Your task to perform on an android device: open chrome and create a bookmark for the current page Image 0: 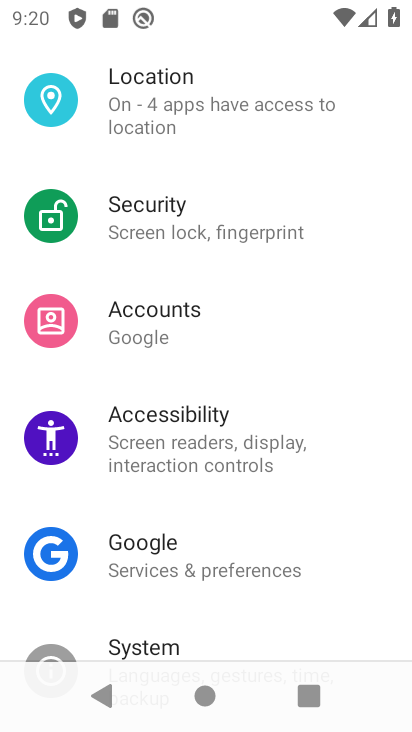
Step 0: press home button
Your task to perform on an android device: open chrome and create a bookmark for the current page Image 1: 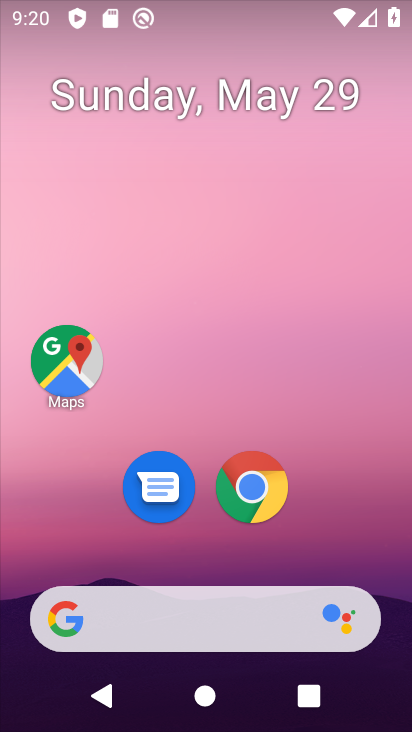
Step 1: click (232, 491)
Your task to perform on an android device: open chrome and create a bookmark for the current page Image 2: 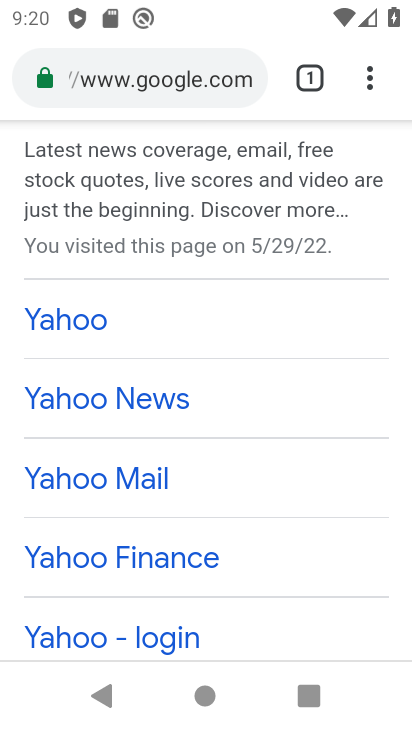
Step 2: click (372, 75)
Your task to perform on an android device: open chrome and create a bookmark for the current page Image 3: 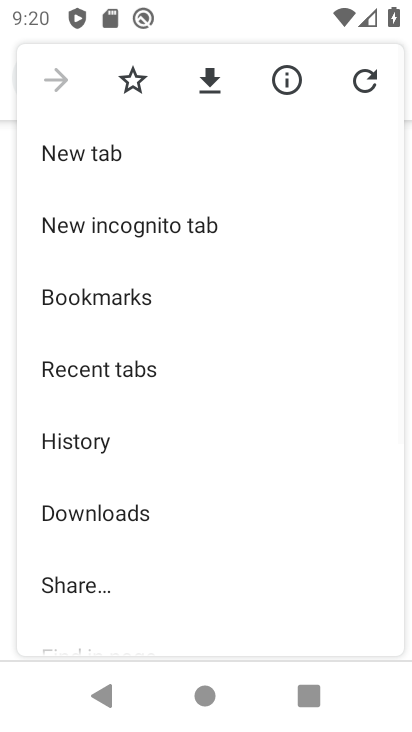
Step 3: click (130, 81)
Your task to perform on an android device: open chrome and create a bookmark for the current page Image 4: 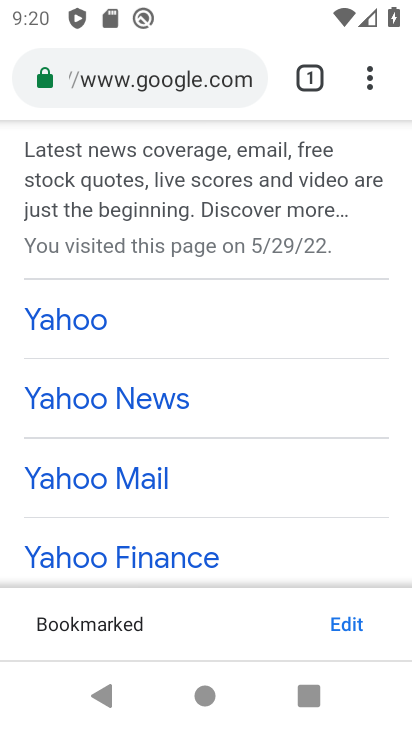
Step 4: task complete